Your task to perform on an android device: all mails in gmail Image 0: 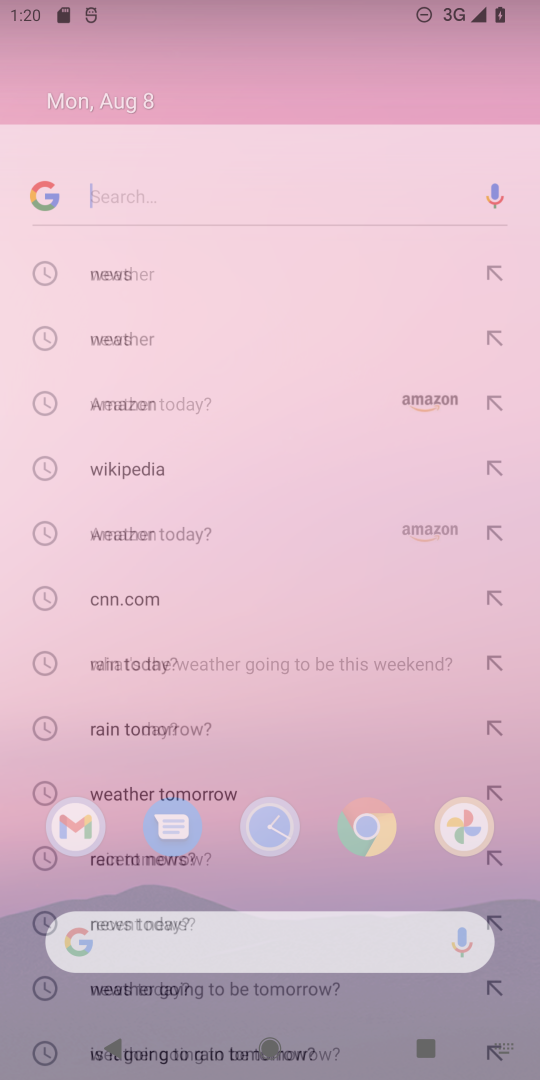
Step 0: press home button
Your task to perform on an android device: all mails in gmail Image 1: 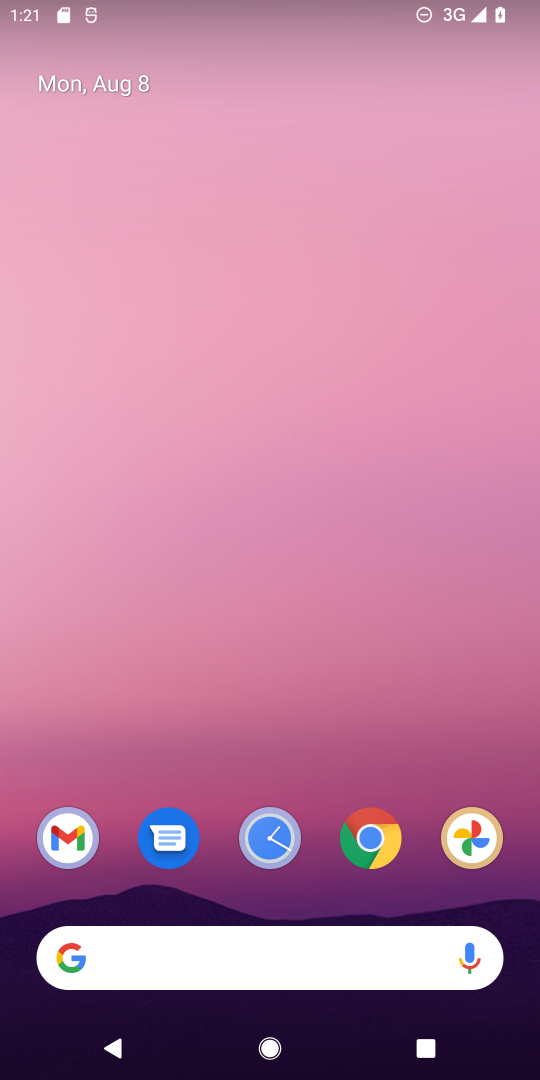
Step 1: click (71, 840)
Your task to perform on an android device: all mails in gmail Image 2: 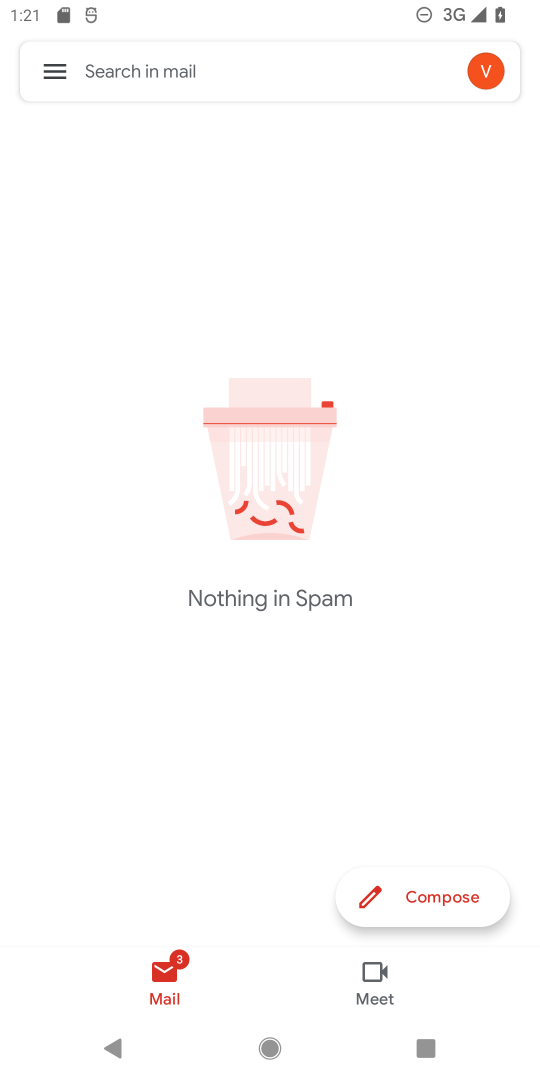
Step 2: click (54, 63)
Your task to perform on an android device: all mails in gmail Image 3: 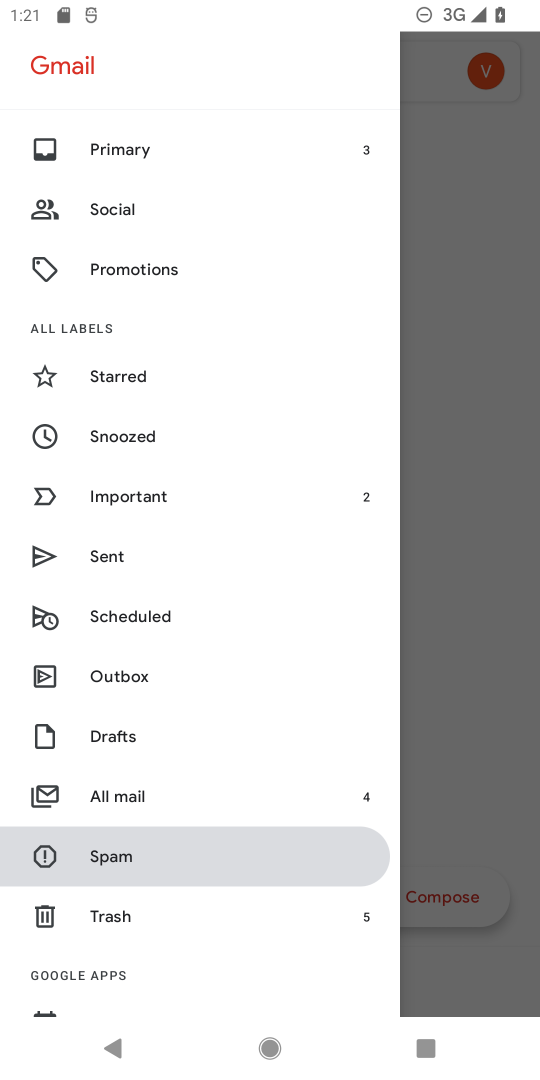
Step 3: click (114, 794)
Your task to perform on an android device: all mails in gmail Image 4: 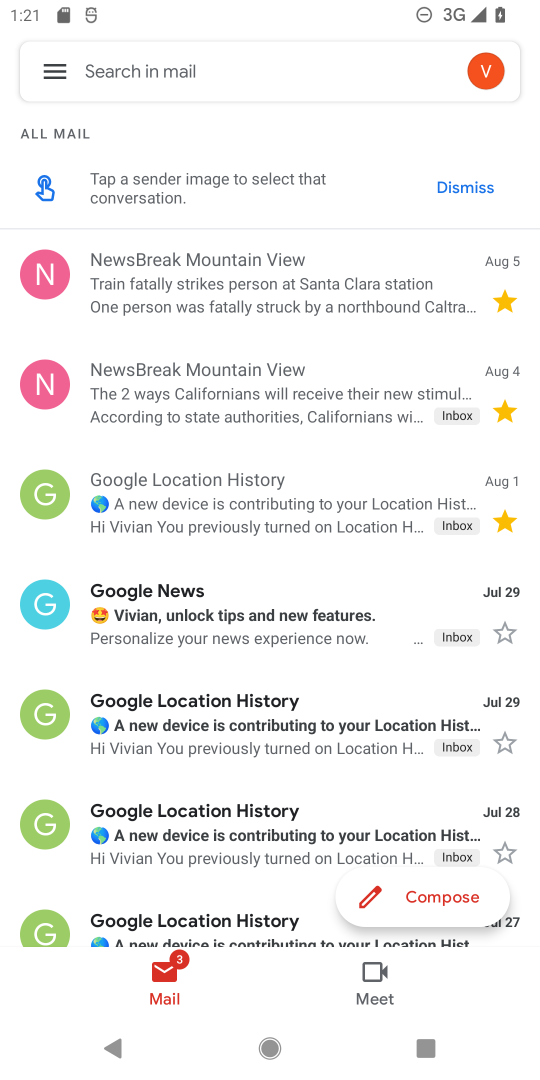
Step 4: task complete